Your task to perform on an android device: empty trash in the gmail app Image 0: 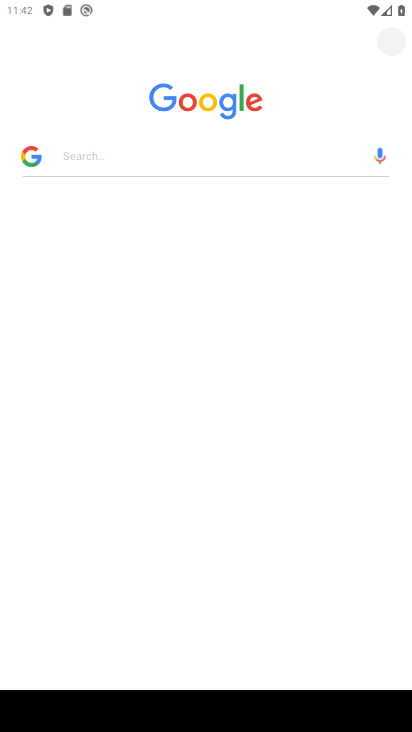
Step 0: press home button
Your task to perform on an android device: empty trash in the gmail app Image 1: 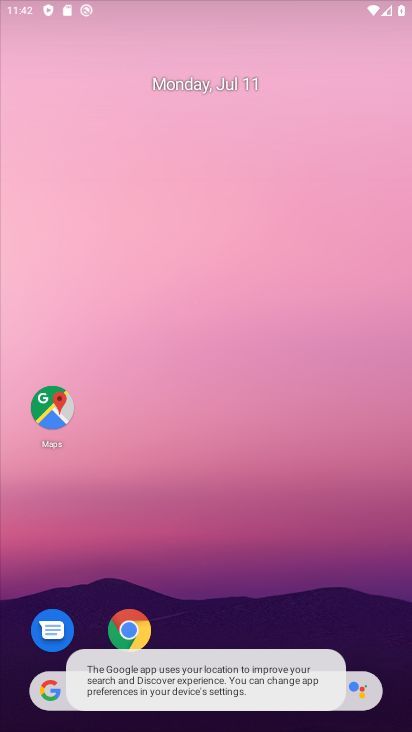
Step 1: drag from (305, 603) to (319, 107)
Your task to perform on an android device: empty trash in the gmail app Image 2: 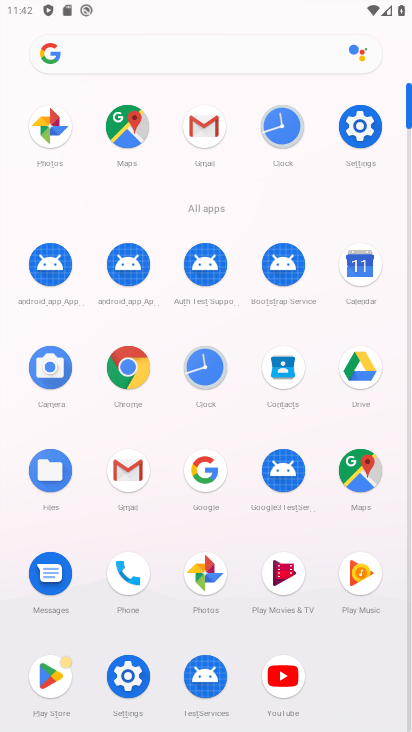
Step 2: drag from (337, 676) to (355, 455)
Your task to perform on an android device: empty trash in the gmail app Image 3: 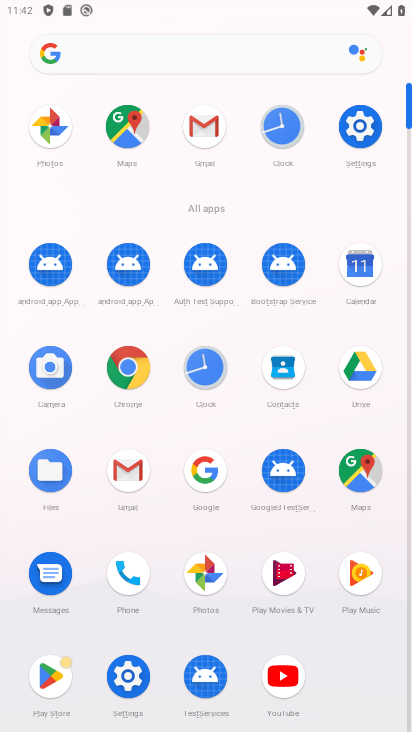
Step 3: click (211, 130)
Your task to perform on an android device: empty trash in the gmail app Image 4: 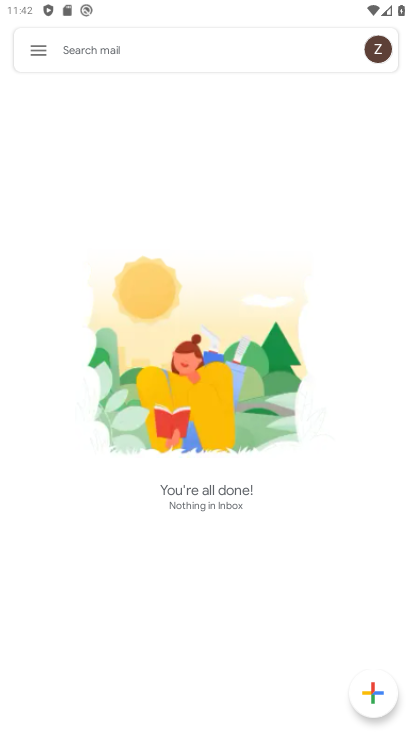
Step 4: click (36, 52)
Your task to perform on an android device: empty trash in the gmail app Image 5: 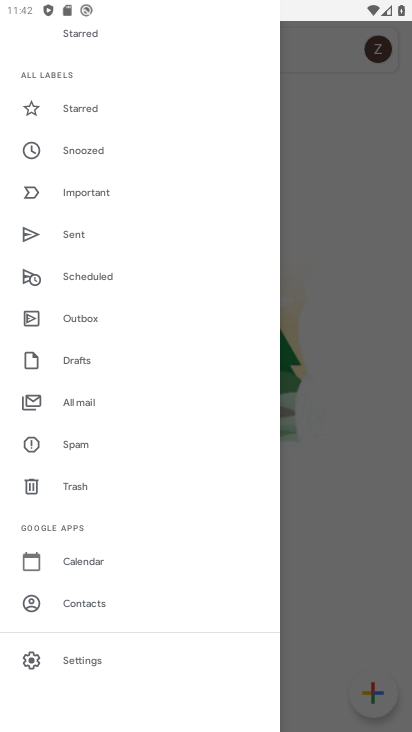
Step 5: click (92, 484)
Your task to perform on an android device: empty trash in the gmail app Image 6: 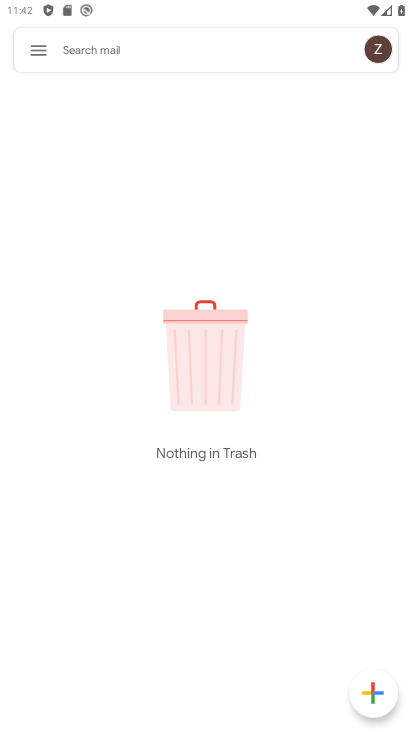
Step 6: task complete